Your task to perform on an android device: find snoozed emails in the gmail app Image 0: 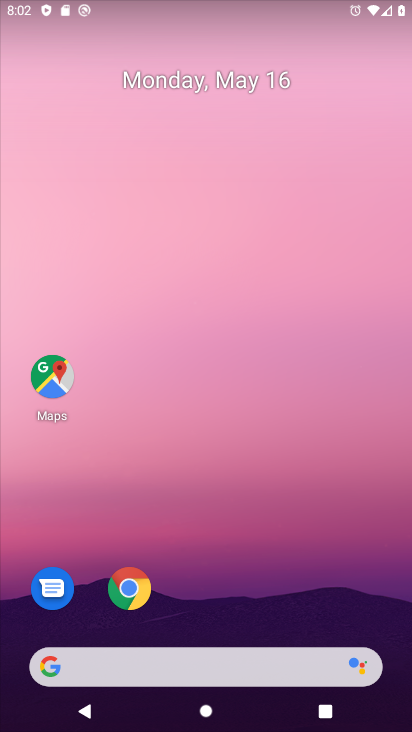
Step 0: drag from (138, 367) to (4, 153)
Your task to perform on an android device: find snoozed emails in the gmail app Image 1: 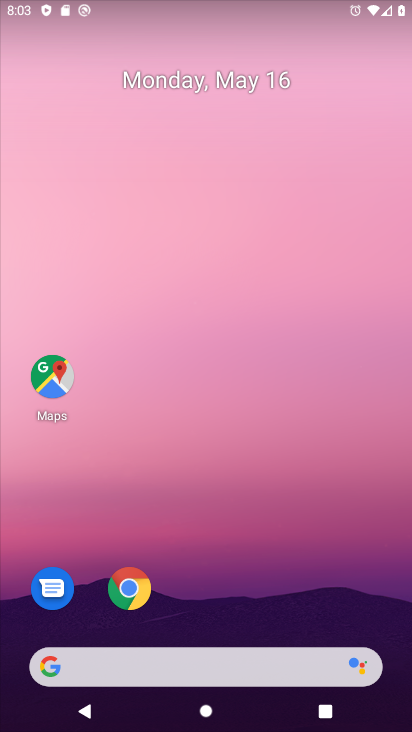
Step 1: drag from (245, 497) to (146, 126)
Your task to perform on an android device: find snoozed emails in the gmail app Image 2: 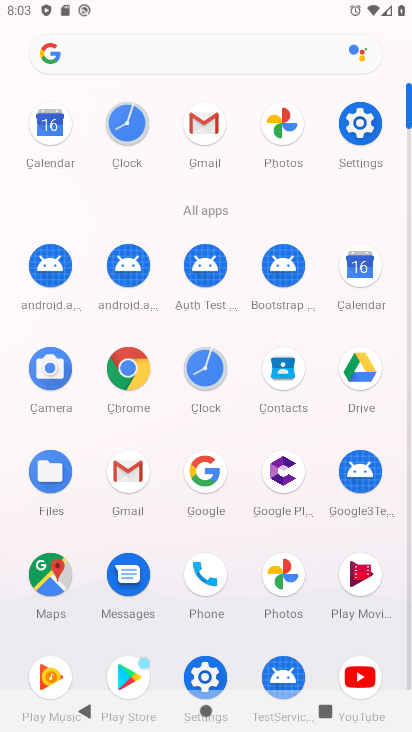
Step 2: click (134, 480)
Your task to perform on an android device: find snoozed emails in the gmail app Image 3: 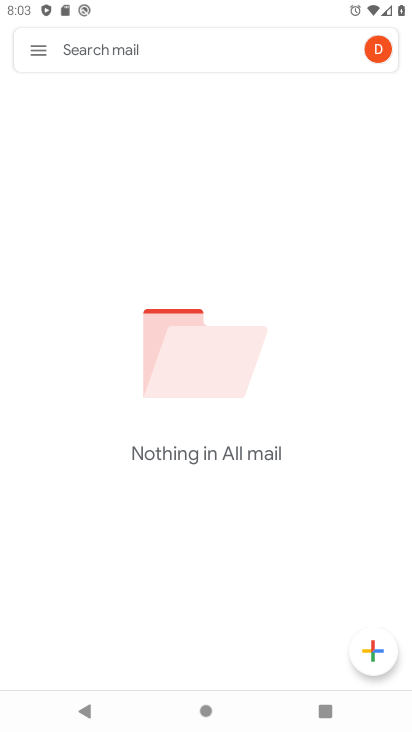
Step 3: click (32, 56)
Your task to perform on an android device: find snoozed emails in the gmail app Image 4: 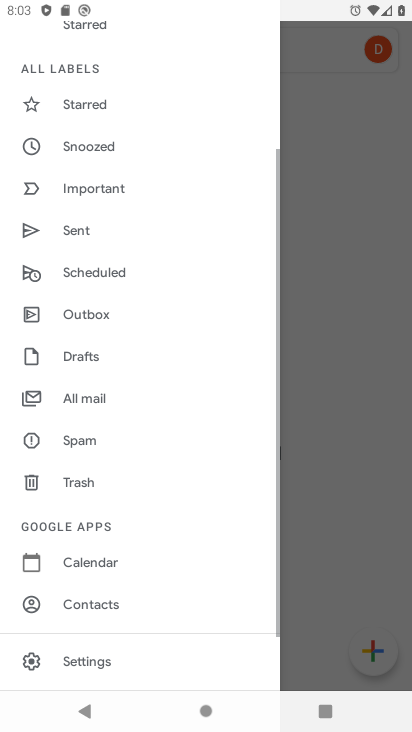
Step 4: click (97, 163)
Your task to perform on an android device: find snoozed emails in the gmail app Image 5: 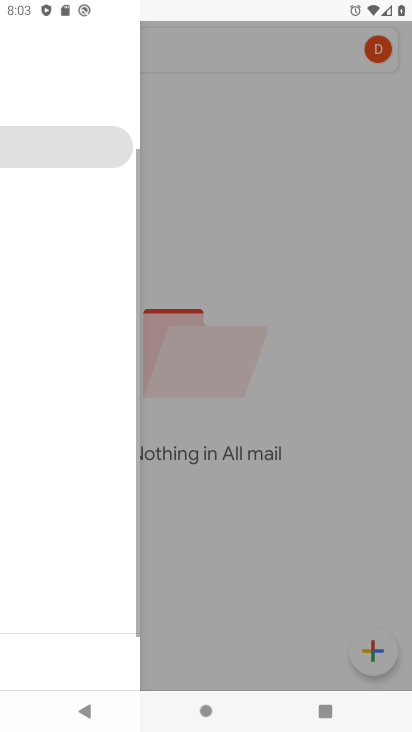
Step 5: click (88, 146)
Your task to perform on an android device: find snoozed emails in the gmail app Image 6: 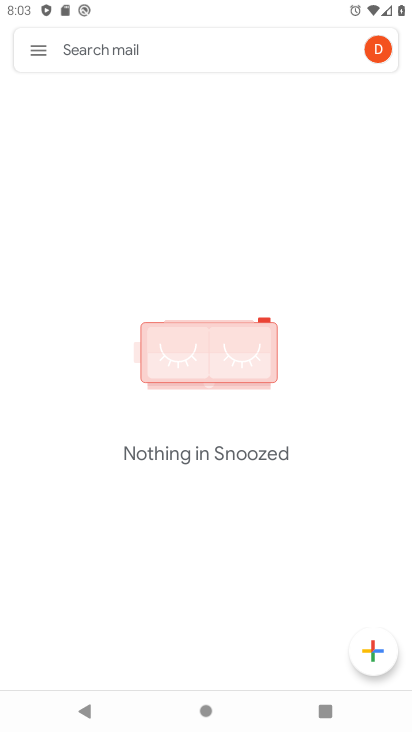
Step 6: task complete